Your task to perform on an android device: delete the emails in spam in the gmail app Image 0: 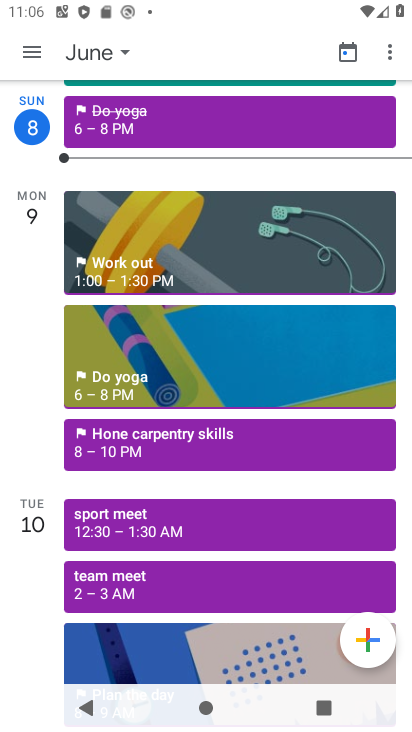
Step 0: press home button
Your task to perform on an android device: delete the emails in spam in the gmail app Image 1: 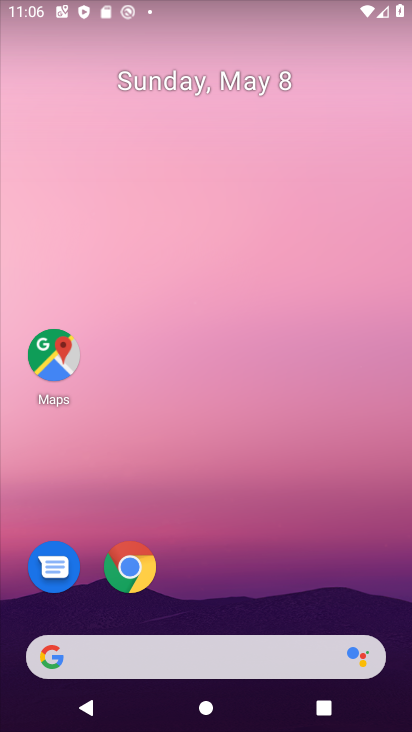
Step 1: drag from (228, 606) to (262, 54)
Your task to perform on an android device: delete the emails in spam in the gmail app Image 2: 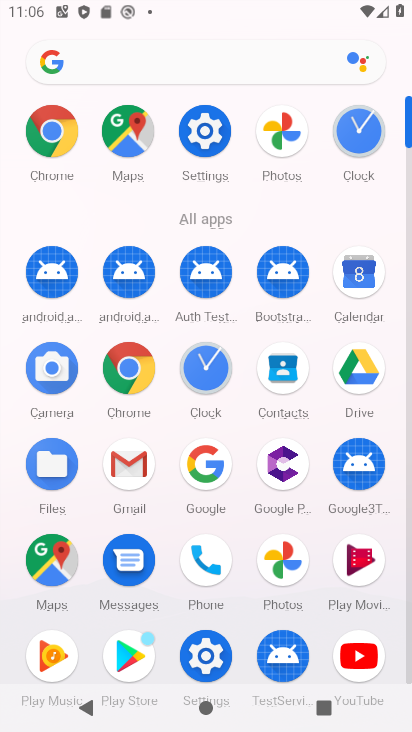
Step 2: click (127, 457)
Your task to perform on an android device: delete the emails in spam in the gmail app Image 3: 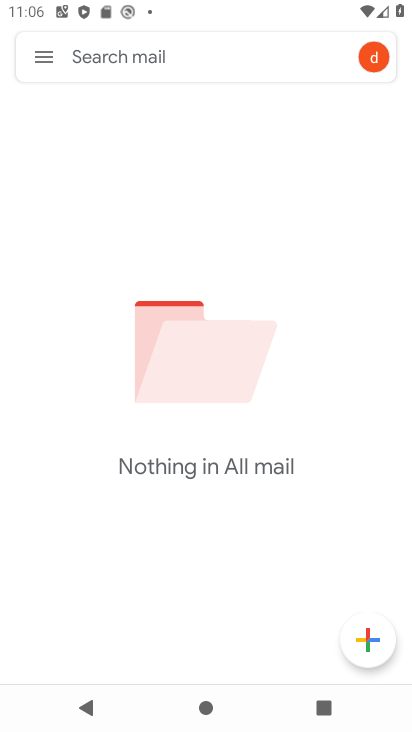
Step 3: click (42, 57)
Your task to perform on an android device: delete the emails in spam in the gmail app Image 4: 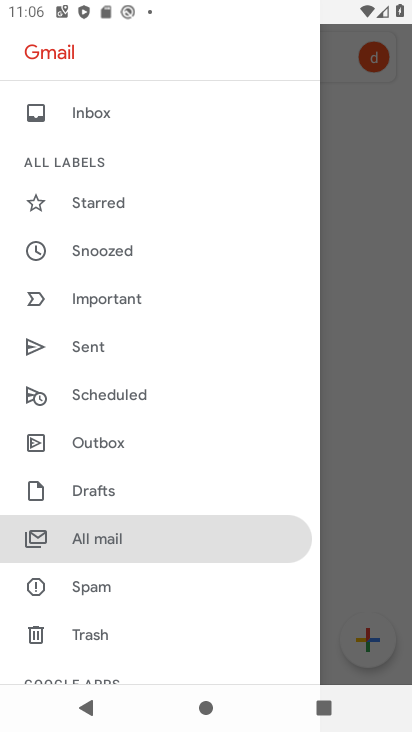
Step 4: click (113, 531)
Your task to perform on an android device: delete the emails in spam in the gmail app Image 5: 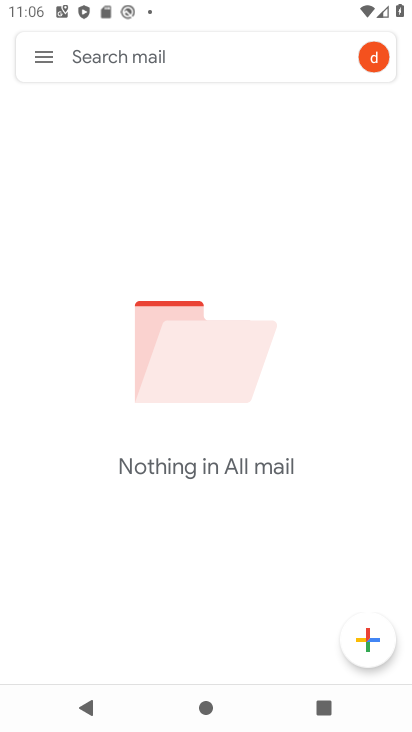
Step 5: task complete